Your task to perform on an android device: Search for Mexican restaurants on Maps Image 0: 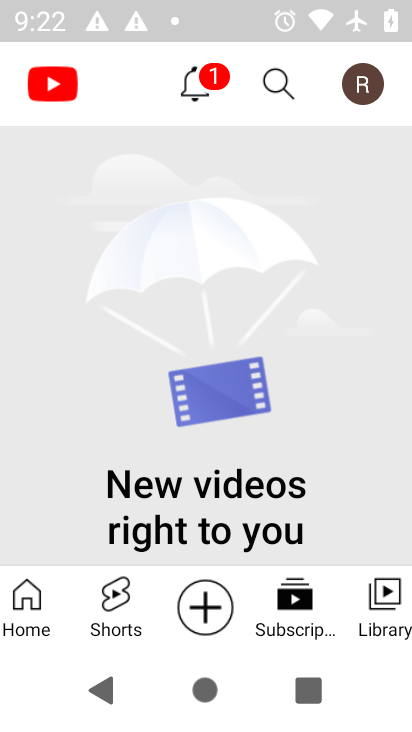
Step 0: press home button
Your task to perform on an android device: Search for Mexican restaurants on Maps Image 1: 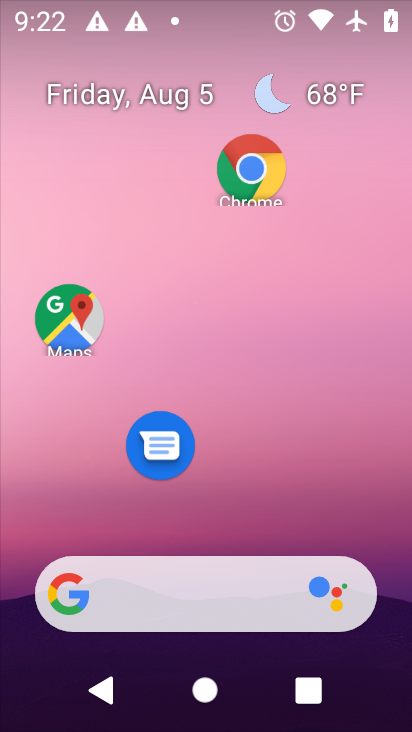
Step 1: click (76, 312)
Your task to perform on an android device: Search for Mexican restaurants on Maps Image 2: 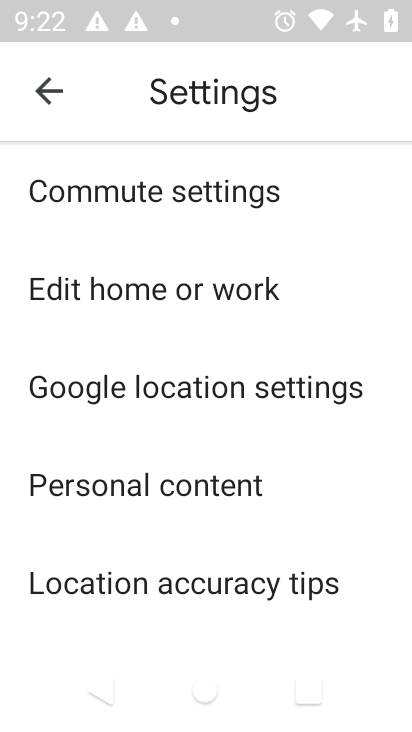
Step 2: click (55, 94)
Your task to perform on an android device: Search for Mexican restaurants on Maps Image 3: 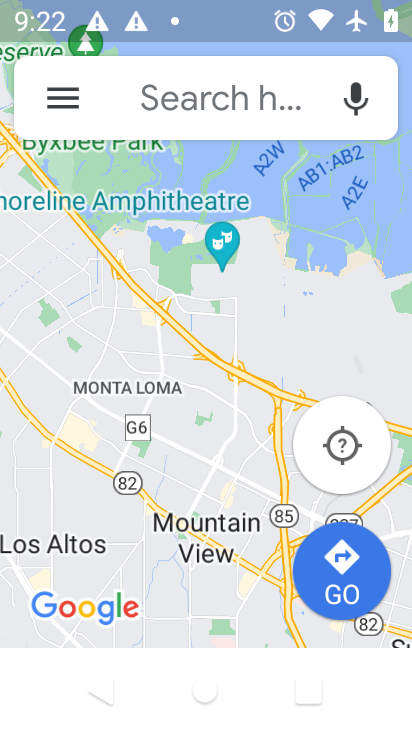
Step 3: click (211, 83)
Your task to perform on an android device: Search for Mexican restaurants on Maps Image 4: 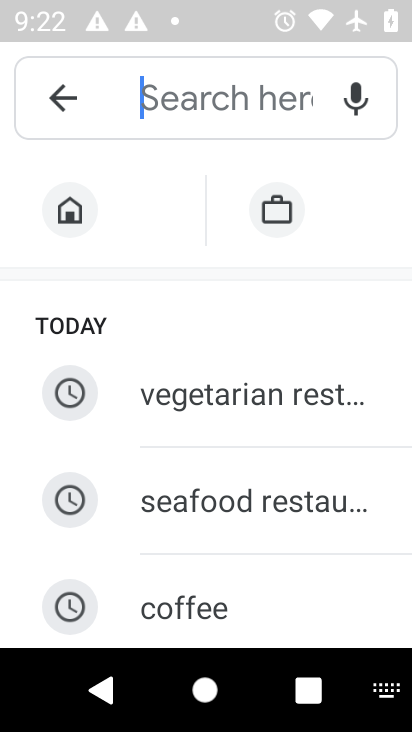
Step 4: type "Mexican restaurants"
Your task to perform on an android device: Search for Mexican restaurants on Maps Image 5: 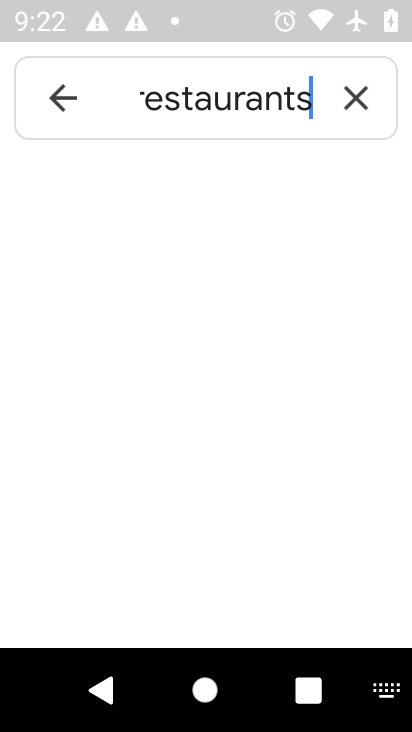
Step 5: type ""
Your task to perform on an android device: Search for Mexican restaurants on Maps Image 6: 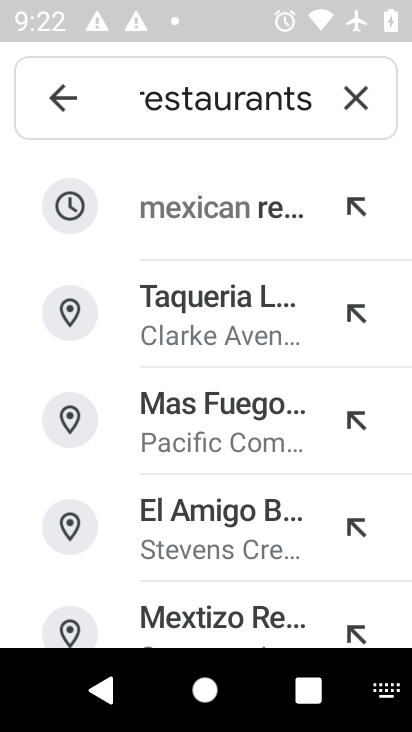
Step 6: click (229, 211)
Your task to perform on an android device: Search for Mexican restaurants on Maps Image 7: 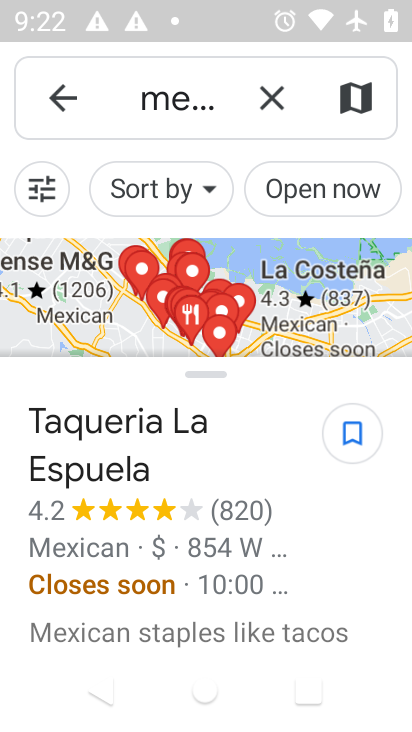
Step 7: task complete